Your task to perform on an android device: Search for "razer thresher" on bestbuy.com, select the first entry, and add it to the cart. Image 0: 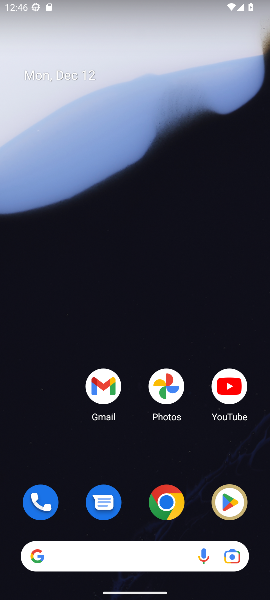
Step 0: click (178, 507)
Your task to perform on an android device: Search for "razer thresher" on bestbuy.com, select the first entry, and add it to the cart. Image 1: 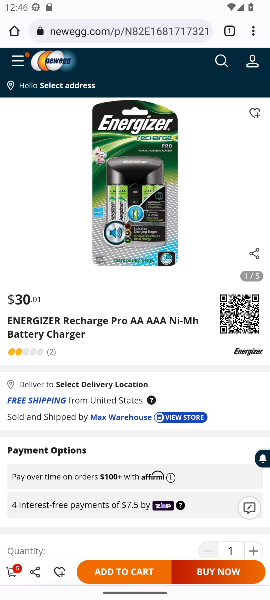
Step 1: click (186, 29)
Your task to perform on an android device: Search for "razer thresher" on bestbuy.com, select the first entry, and add it to the cart. Image 2: 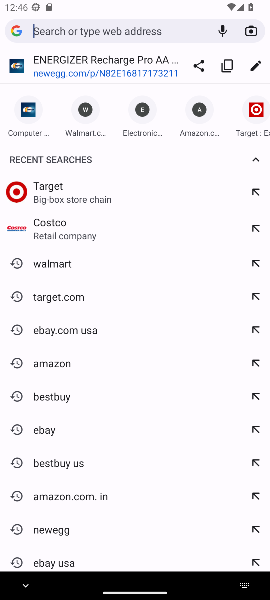
Step 2: type "bestbuy"
Your task to perform on an android device: Search for "razer thresher" on bestbuy.com, select the first entry, and add it to the cart. Image 3: 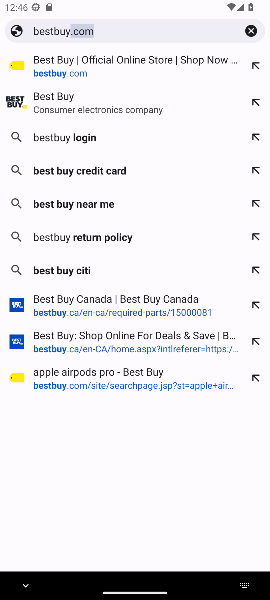
Step 3: click (159, 76)
Your task to perform on an android device: Search for "razer thresher" on bestbuy.com, select the first entry, and add it to the cart. Image 4: 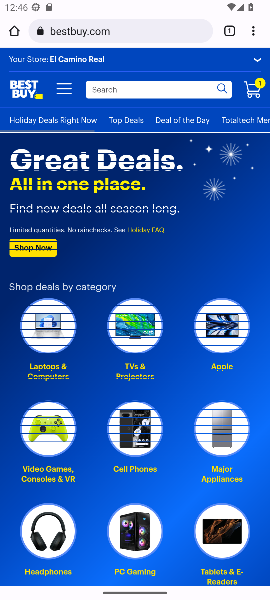
Step 4: click (97, 87)
Your task to perform on an android device: Search for "razer thresher" on bestbuy.com, select the first entry, and add it to the cart. Image 5: 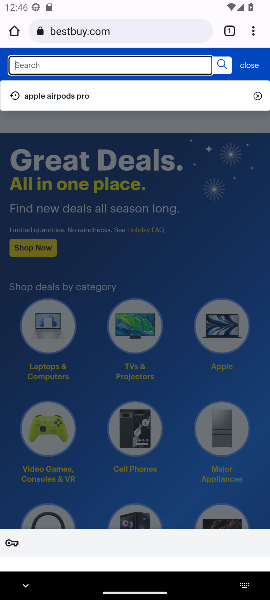
Step 5: type "razer  thresher"
Your task to perform on an android device: Search for "razer thresher" on bestbuy.com, select the first entry, and add it to the cart. Image 6: 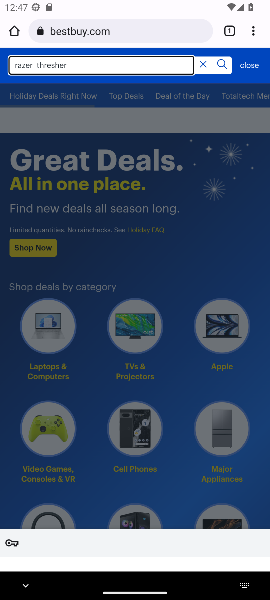
Step 6: click (219, 73)
Your task to perform on an android device: Search for "razer thresher" on bestbuy.com, select the first entry, and add it to the cart. Image 7: 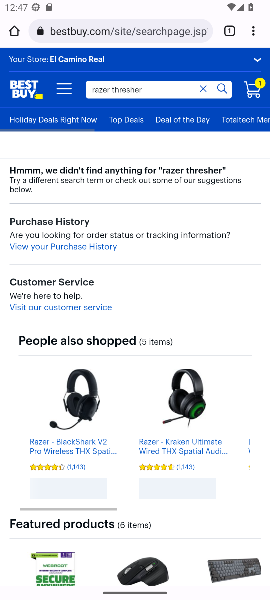
Step 7: click (75, 436)
Your task to perform on an android device: Search for "razer thresher" on bestbuy.com, select the first entry, and add it to the cart. Image 8: 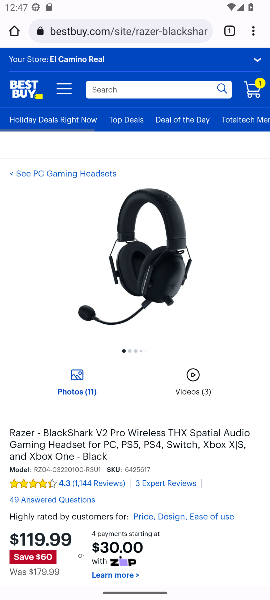
Step 8: drag from (187, 555) to (226, 344)
Your task to perform on an android device: Search for "razer thresher" on bestbuy.com, select the first entry, and add it to the cart. Image 9: 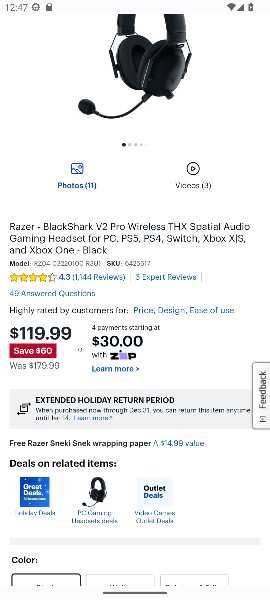
Step 9: drag from (228, 522) to (211, 412)
Your task to perform on an android device: Search for "razer thresher" on bestbuy.com, select the first entry, and add it to the cart. Image 10: 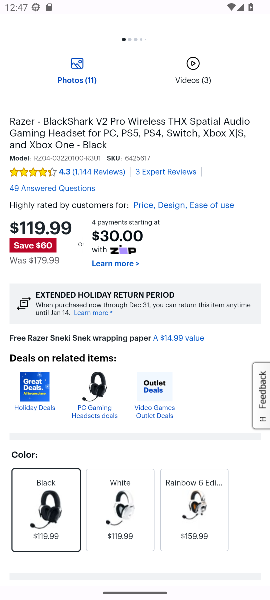
Step 10: drag from (245, 551) to (183, 221)
Your task to perform on an android device: Search for "razer thresher" on bestbuy.com, select the first entry, and add it to the cart. Image 11: 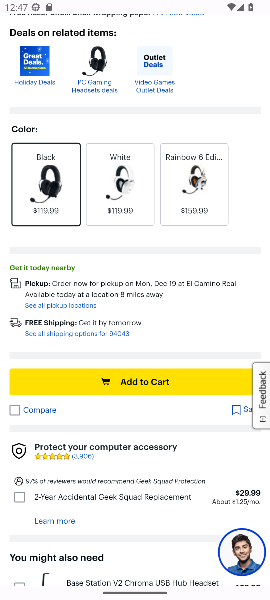
Step 11: click (166, 384)
Your task to perform on an android device: Search for "razer thresher" on bestbuy.com, select the first entry, and add it to the cart. Image 12: 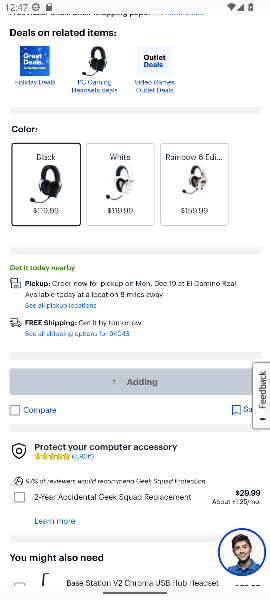
Step 12: task complete